Your task to perform on an android device: Open Chrome and go to the settings page Image 0: 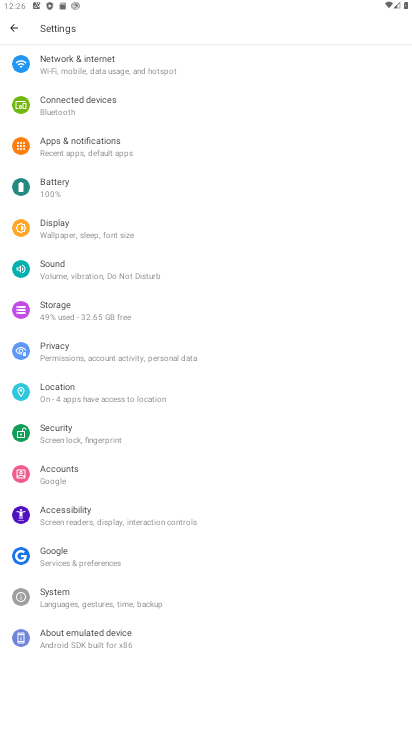
Step 0: press home button
Your task to perform on an android device: Open Chrome and go to the settings page Image 1: 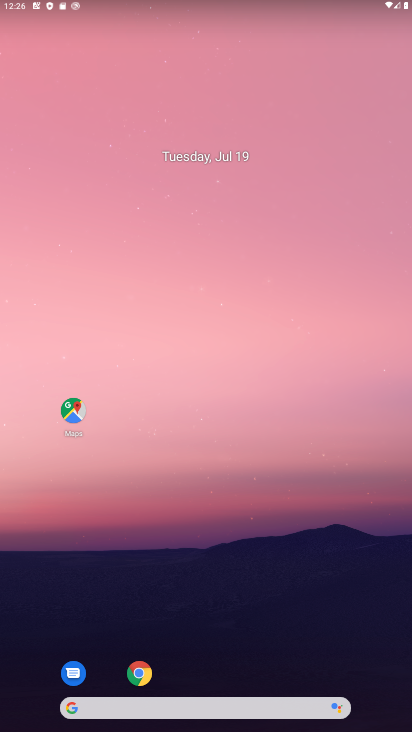
Step 1: click (140, 678)
Your task to perform on an android device: Open Chrome and go to the settings page Image 2: 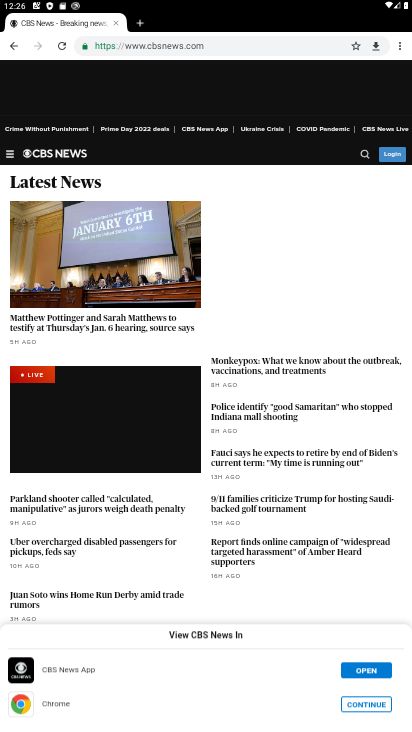
Step 2: click (400, 45)
Your task to perform on an android device: Open Chrome and go to the settings page Image 3: 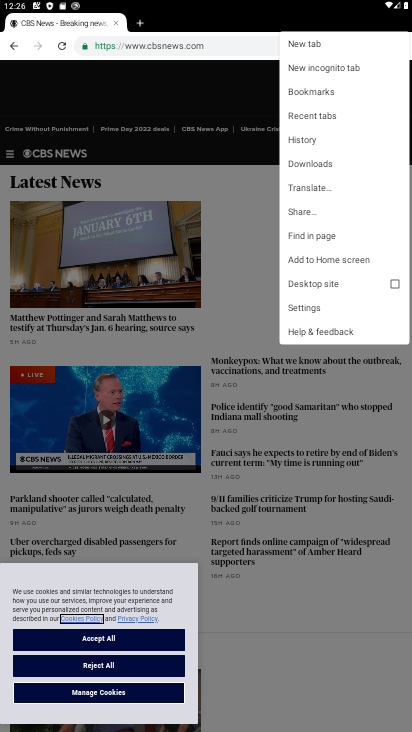
Step 3: click (328, 304)
Your task to perform on an android device: Open Chrome and go to the settings page Image 4: 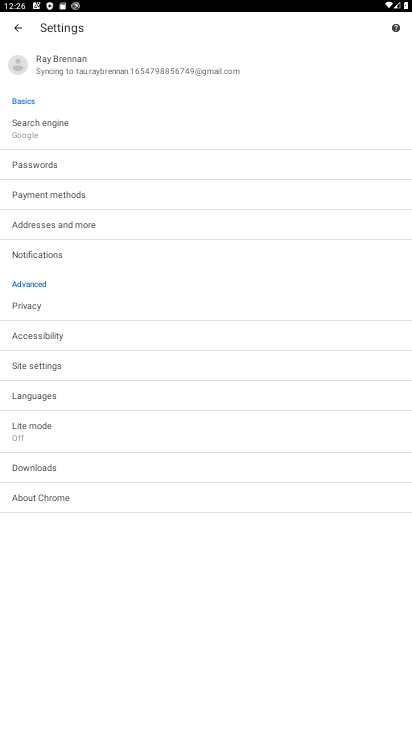
Step 4: task complete